Your task to perform on an android device: check google app version Image 0: 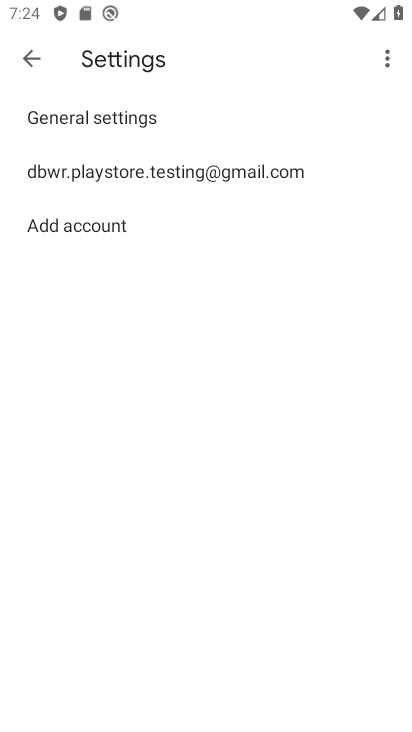
Step 0: press home button
Your task to perform on an android device: check google app version Image 1: 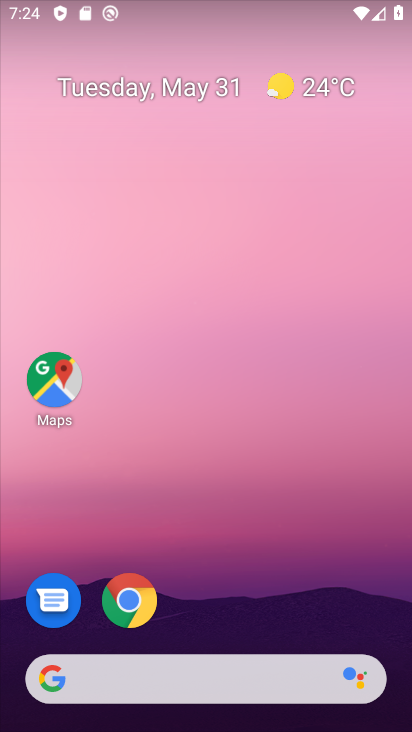
Step 1: drag from (280, 349) to (368, 111)
Your task to perform on an android device: check google app version Image 2: 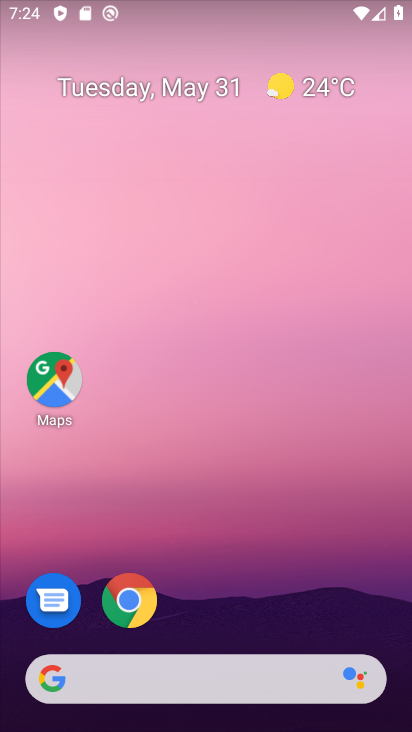
Step 2: drag from (183, 676) to (350, 127)
Your task to perform on an android device: check google app version Image 3: 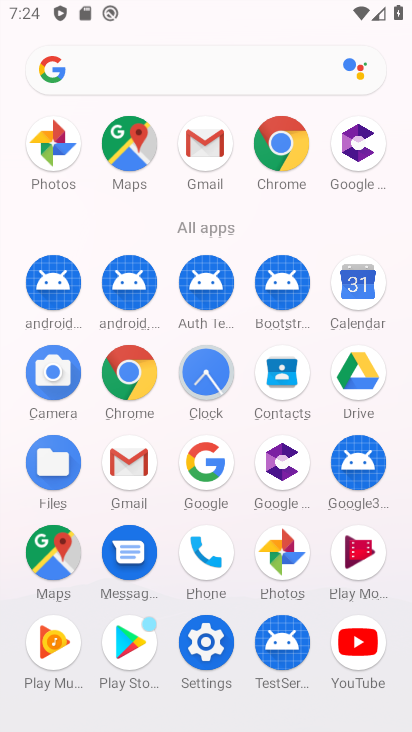
Step 3: drag from (214, 466) to (244, 482)
Your task to perform on an android device: check google app version Image 4: 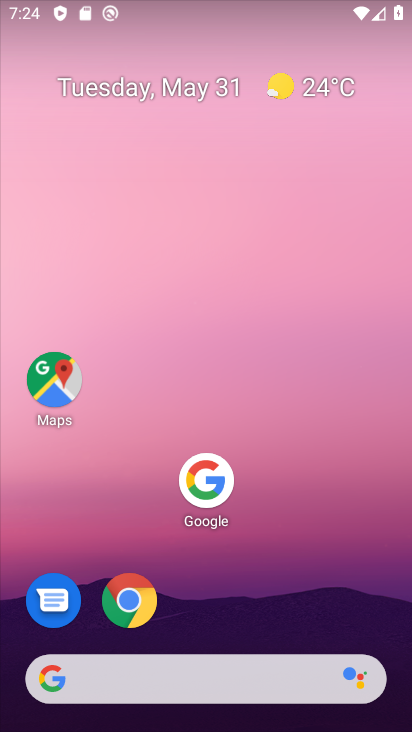
Step 4: click (215, 482)
Your task to perform on an android device: check google app version Image 5: 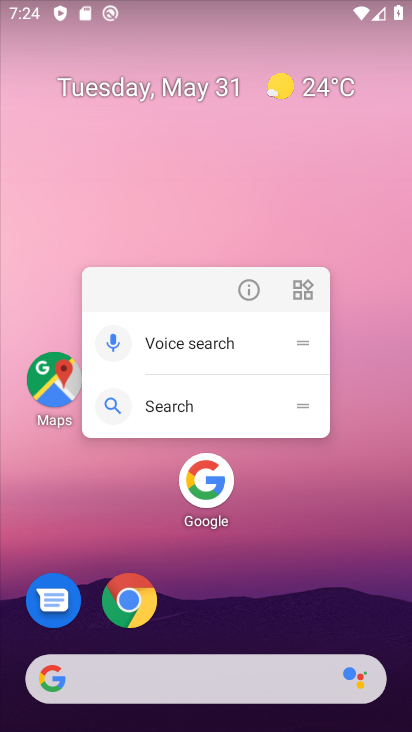
Step 5: click (245, 290)
Your task to perform on an android device: check google app version Image 6: 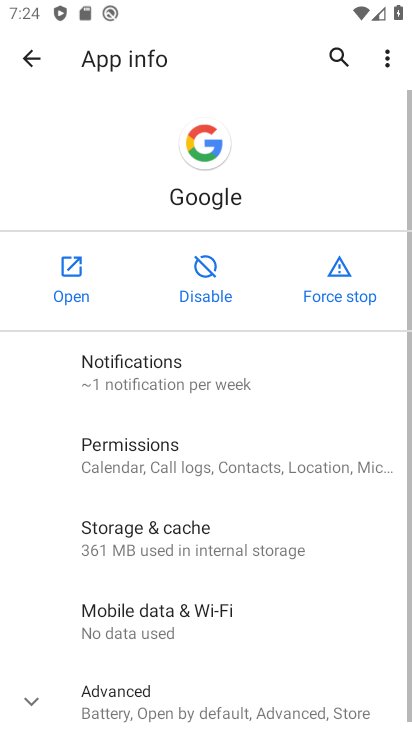
Step 6: drag from (277, 659) to (353, 93)
Your task to perform on an android device: check google app version Image 7: 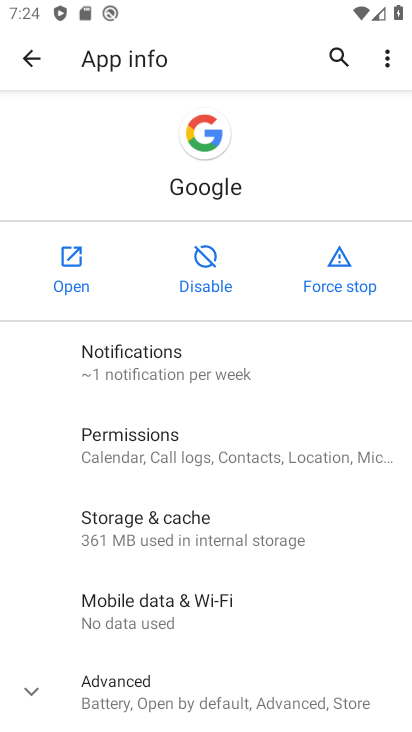
Step 7: click (145, 679)
Your task to perform on an android device: check google app version Image 8: 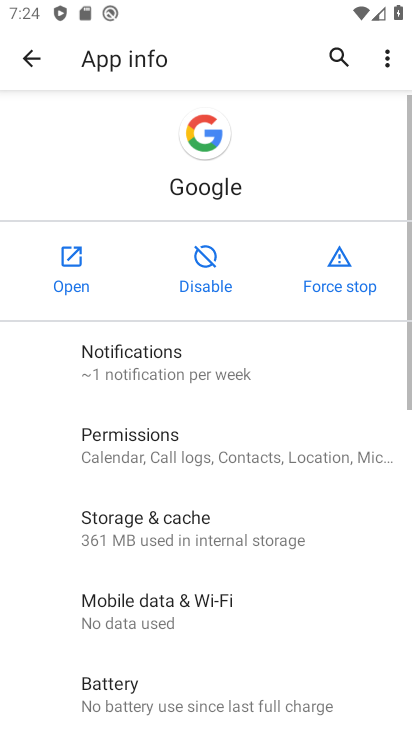
Step 8: task complete